Your task to perform on an android device: open device folders in google photos Image 0: 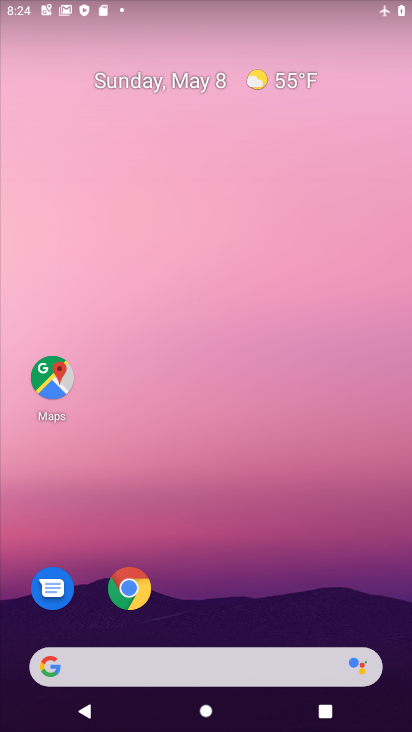
Step 0: drag from (347, 614) to (220, 46)
Your task to perform on an android device: open device folders in google photos Image 1: 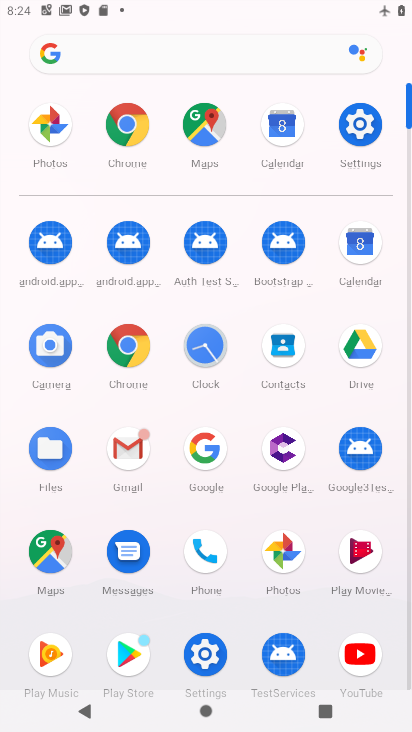
Step 1: click (276, 545)
Your task to perform on an android device: open device folders in google photos Image 2: 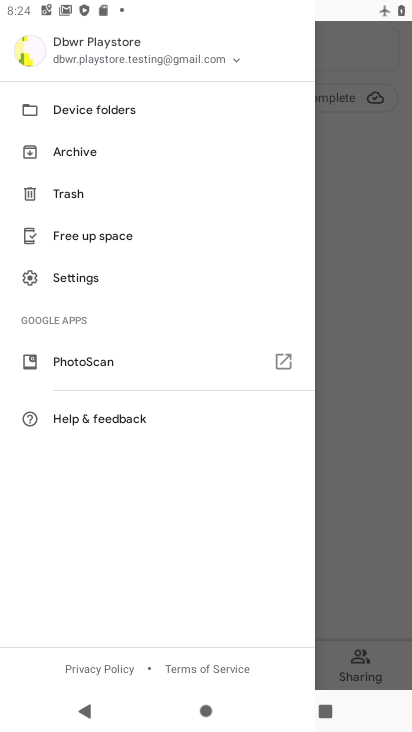
Step 2: click (125, 117)
Your task to perform on an android device: open device folders in google photos Image 3: 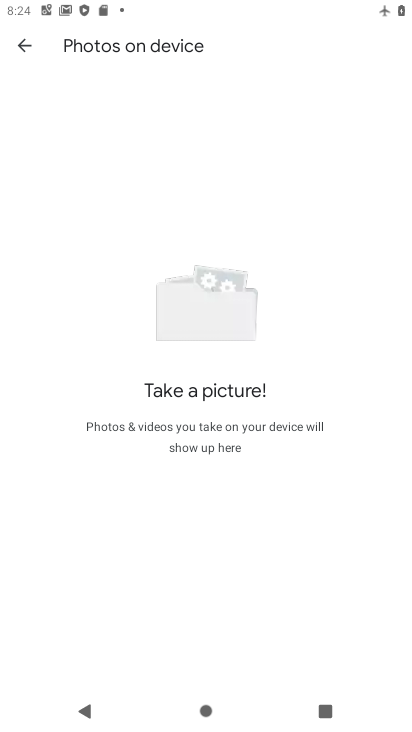
Step 3: task complete